Your task to perform on an android device: Go to network settings Image 0: 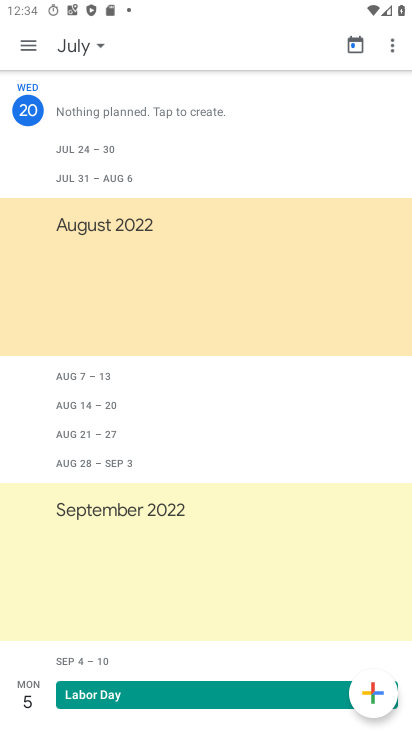
Step 0: press home button
Your task to perform on an android device: Go to network settings Image 1: 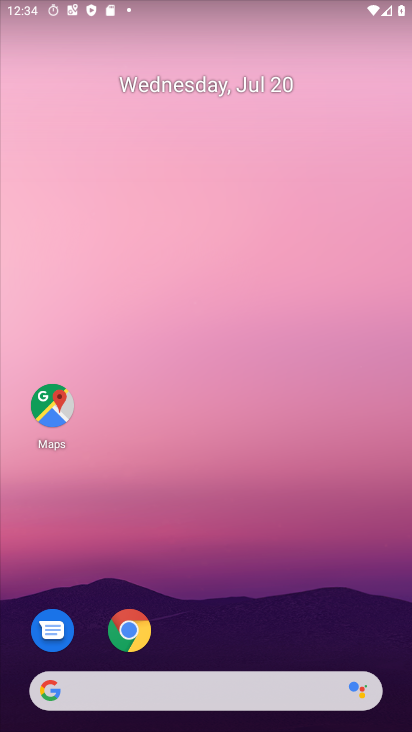
Step 1: drag from (277, 608) to (347, 143)
Your task to perform on an android device: Go to network settings Image 2: 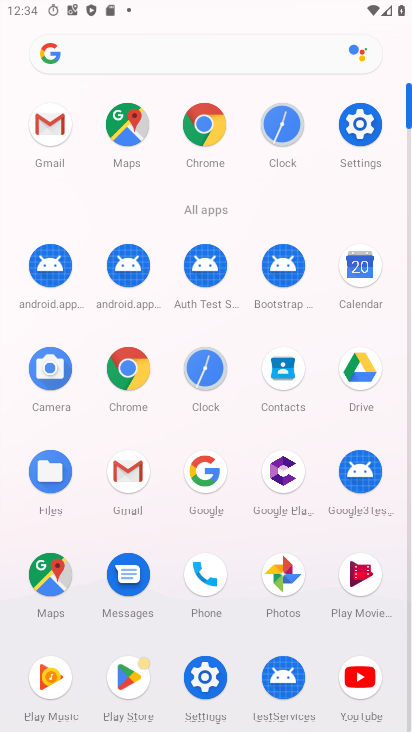
Step 2: click (355, 122)
Your task to perform on an android device: Go to network settings Image 3: 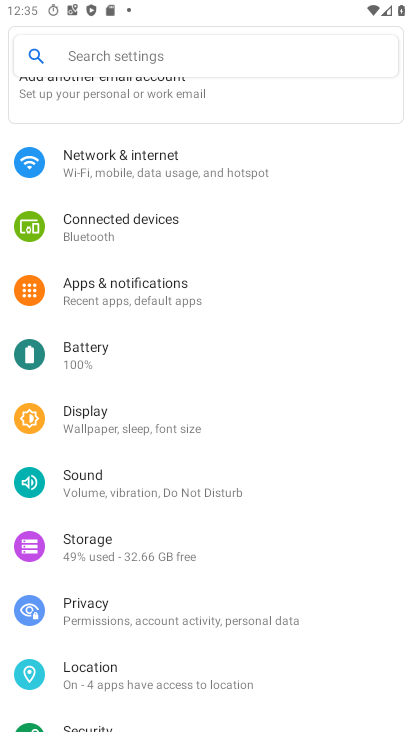
Step 3: click (127, 154)
Your task to perform on an android device: Go to network settings Image 4: 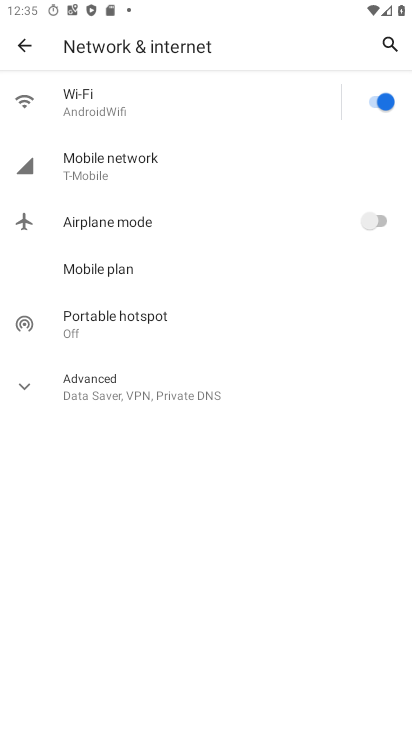
Step 4: click (203, 155)
Your task to perform on an android device: Go to network settings Image 5: 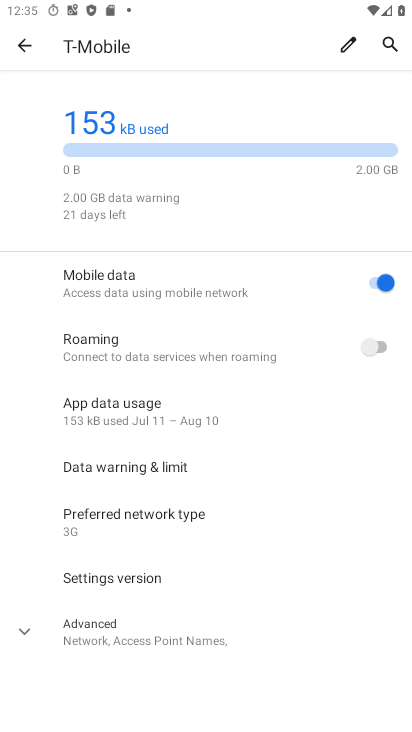
Step 5: task complete